Your task to perform on an android device: turn on notifications settings in the gmail app Image 0: 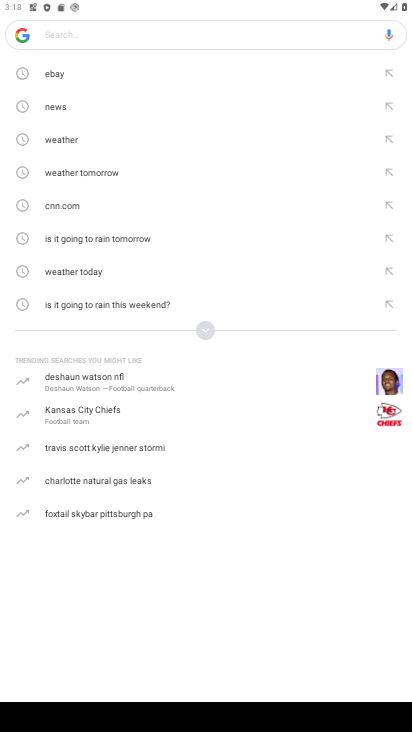
Step 0: press home button
Your task to perform on an android device: turn on notifications settings in the gmail app Image 1: 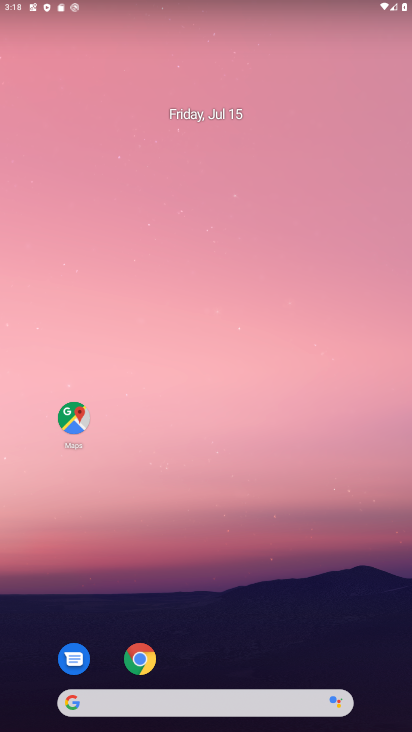
Step 1: drag from (164, 470) to (326, 152)
Your task to perform on an android device: turn on notifications settings in the gmail app Image 2: 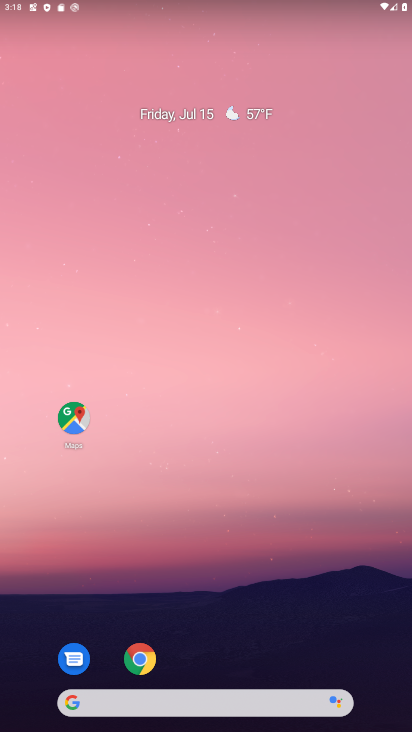
Step 2: drag from (35, 668) to (379, 90)
Your task to perform on an android device: turn on notifications settings in the gmail app Image 3: 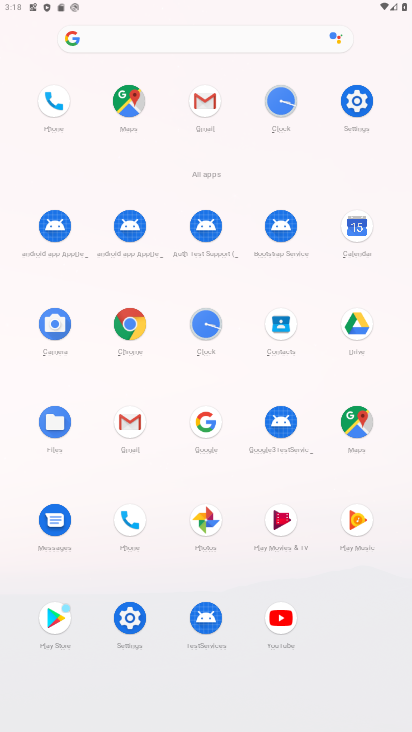
Step 3: click (134, 420)
Your task to perform on an android device: turn on notifications settings in the gmail app Image 4: 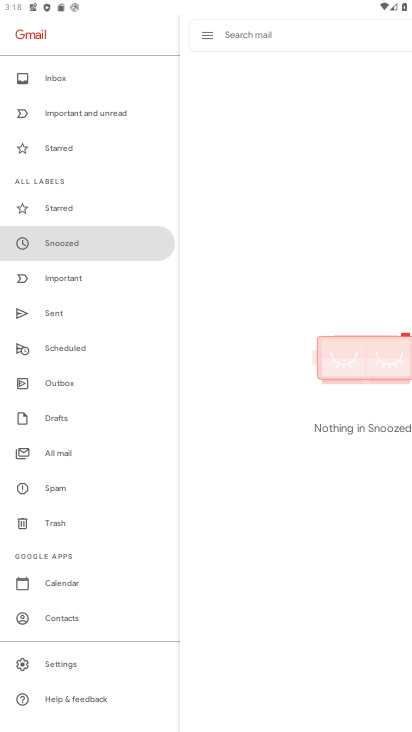
Step 4: click (40, 662)
Your task to perform on an android device: turn on notifications settings in the gmail app Image 5: 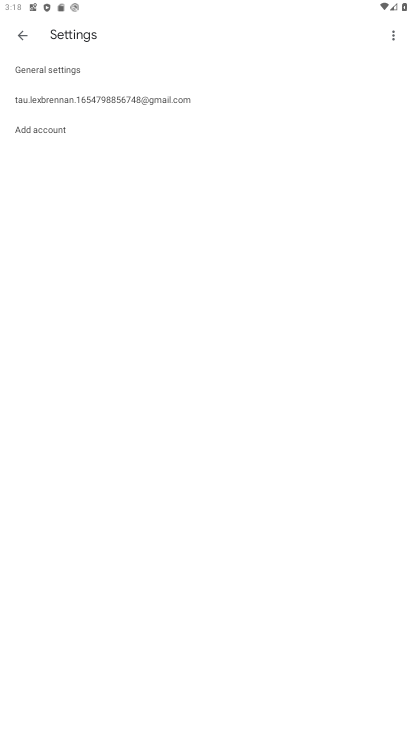
Step 5: click (79, 89)
Your task to perform on an android device: turn on notifications settings in the gmail app Image 6: 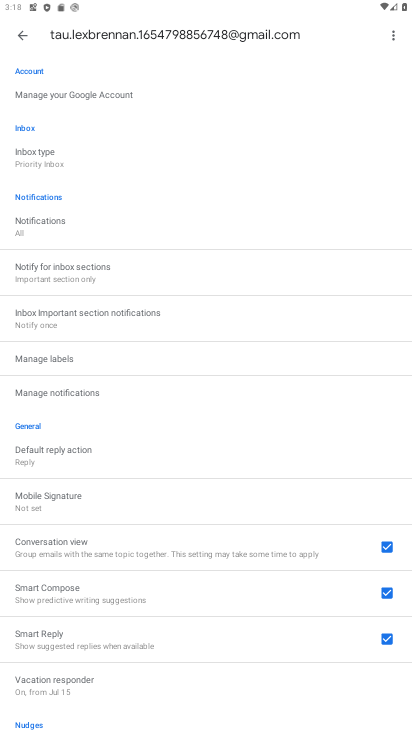
Step 6: click (56, 210)
Your task to perform on an android device: turn on notifications settings in the gmail app Image 7: 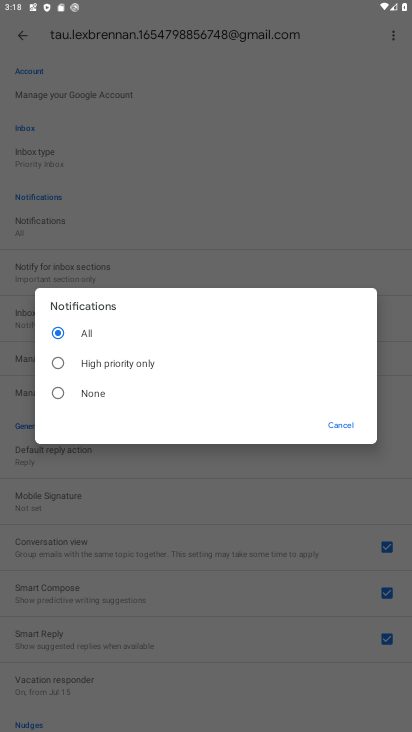
Step 7: click (330, 419)
Your task to perform on an android device: turn on notifications settings in the gmail app Image 8: 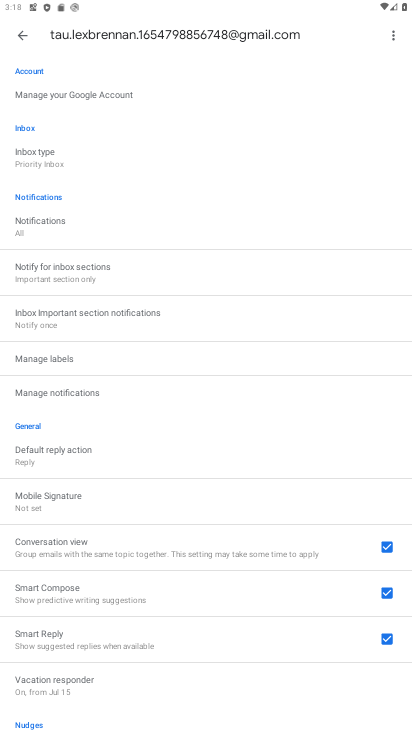
Step 8: task complete